Your task to perform on an android device: change notification settings in the gmail app Image 0: 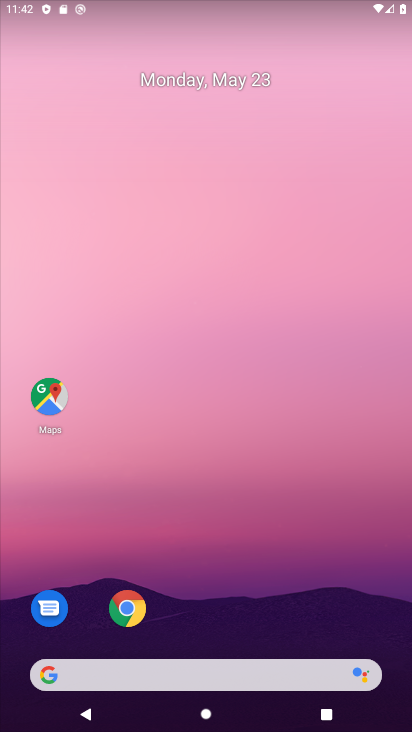
Step 0: drag from (184, 613) to (270, 11)
Your task to perform on an android device: change notification settings in the gmail app Image 1: 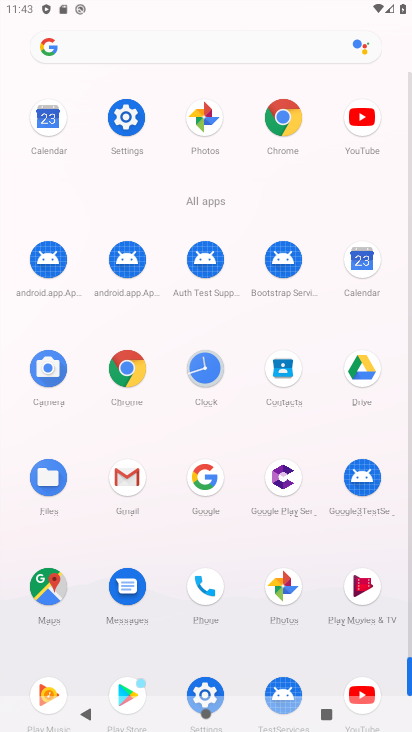
Step 1: click (126, 474)
Your task to perform on an android device: change notification settings in the gmail app Image 2: 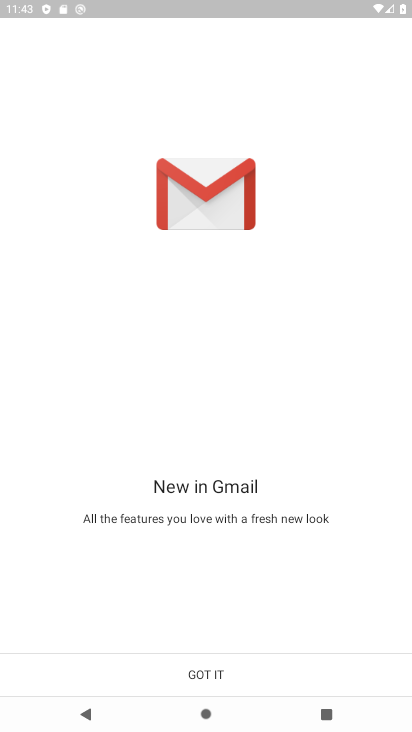
Step 2: click (207, 668)
Your task to perform on an android device: change notification settings in the gmail app Image 3: 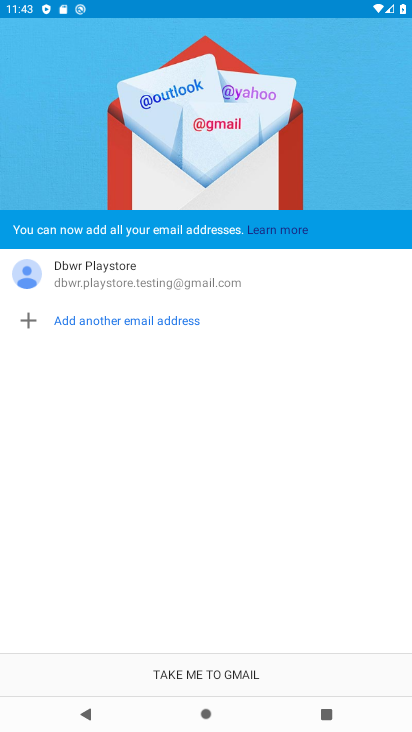
Step 3: click (213, 671)
Your task to perform on an android device: change notification settings in the gmail app Image 4: 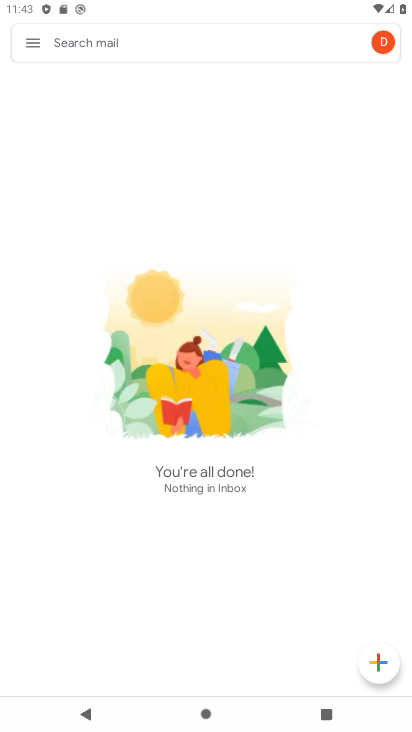
Step 4: click (31, 44)
Your task to perform on an android device: change notification settings in the gmail app Image 5: 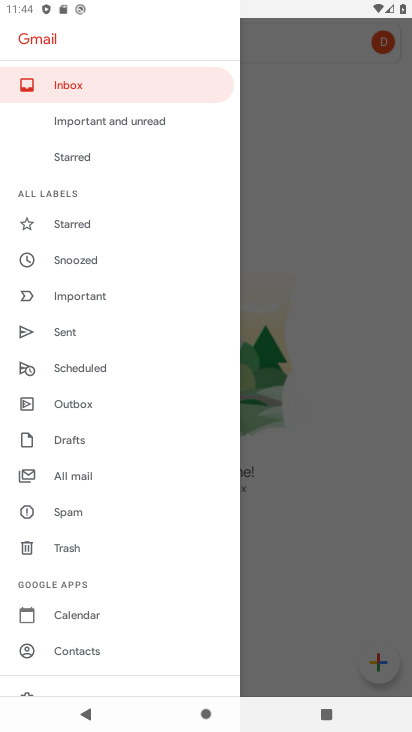
Step 5: drag from (126, 633) to (158, 187)
Your task to perform on an android device: change notification settings in the gmail app Image 6: 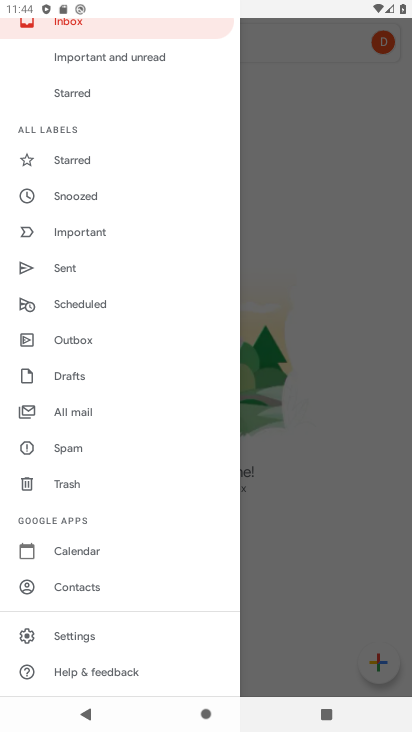
Step 6: click (104, 630)
Your task to perform on an android device: change notification settings in the gmail app Image 7: 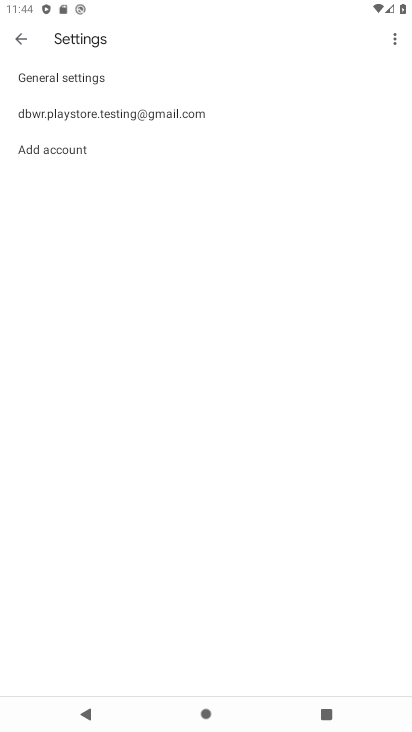
Step 7: click (111, 73)
Your task to perform on an android device: change notification settings in the gmail app Image 8: 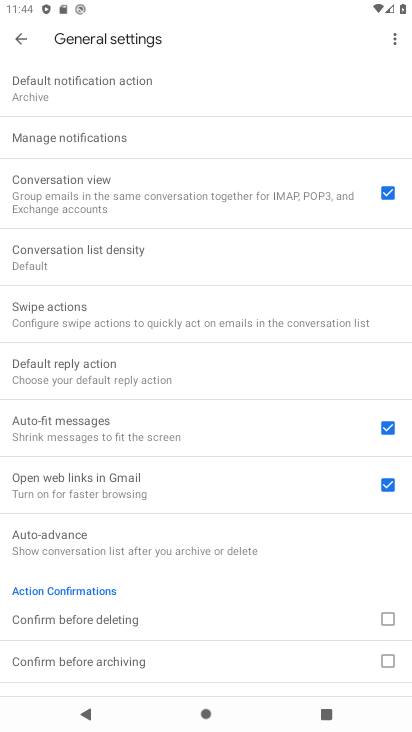
Step 8: click (140, 128)
Your task to perform on an android device: change notification settings in the gmail app Image 9: 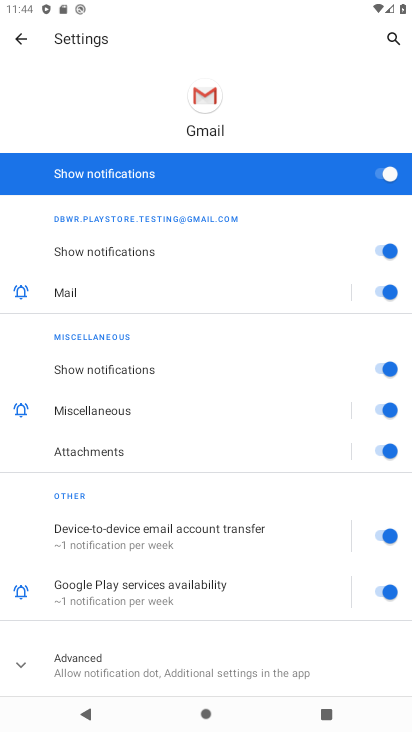
Step 9: click (383, 168)
Your task to perform on an android device: change notification settings in the gmail app Image 10: 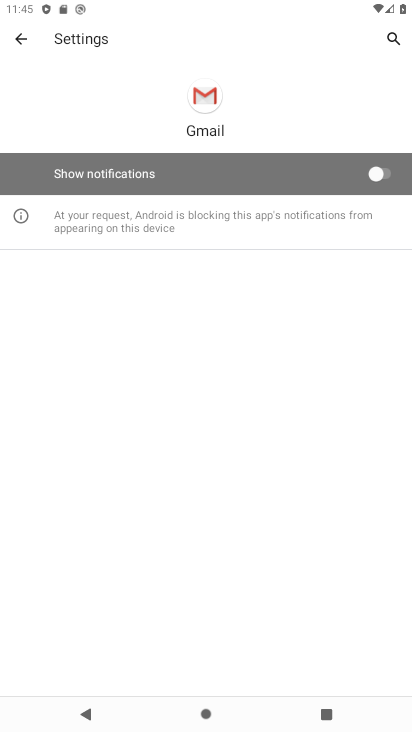
Step 10: task complete